Your task to perform on an android device: Open Google Chrome and open the bookmarks view Image 0: 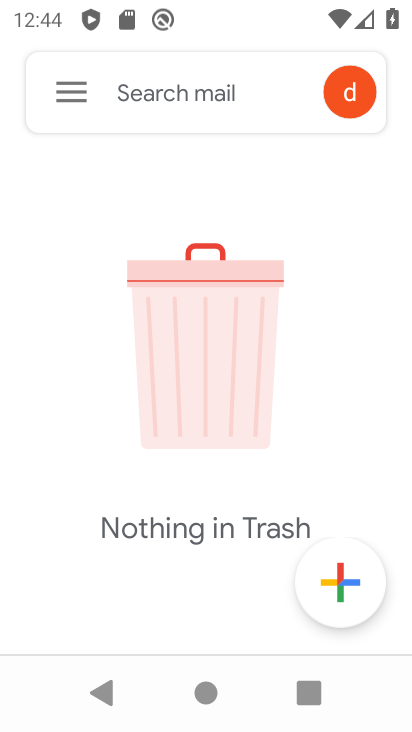
Step 0: press home button
Your task to perform on an android device: Open Google Chrome and open the bookmarks view Image 1: 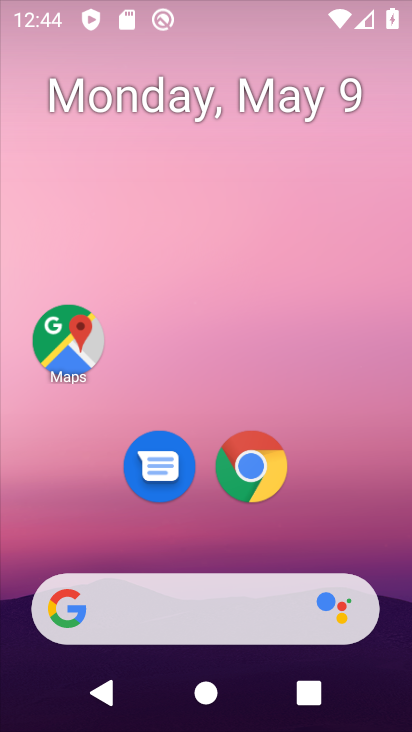
Step 1: drag from (271, 491) to (304, 97)
Your task to perform on an android device: Open Google Chrome and open the bookmarks view Image 2: 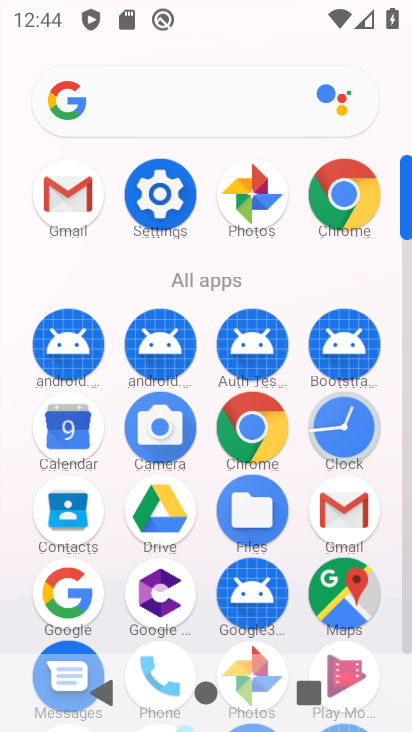
Step 2: click (348, 209)
Your task to perform on an android device: Open Google Chrome and open the bookmarks view Image 3: 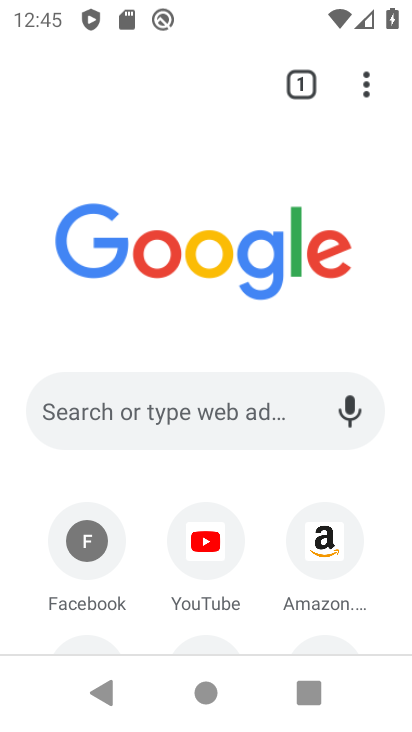
Step 3: click (370, 94)
Your task to perform on an android device: Open Google Chrome and open the bookmarks view Image 4: 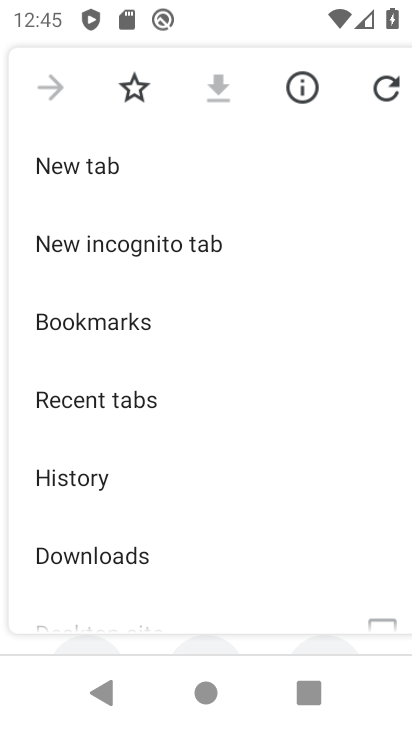
Step 4: drag from (214, 395) to (163, 207)
Your task to perform on an android device: Open Google Chrome and open the bookmarks view Image 5: 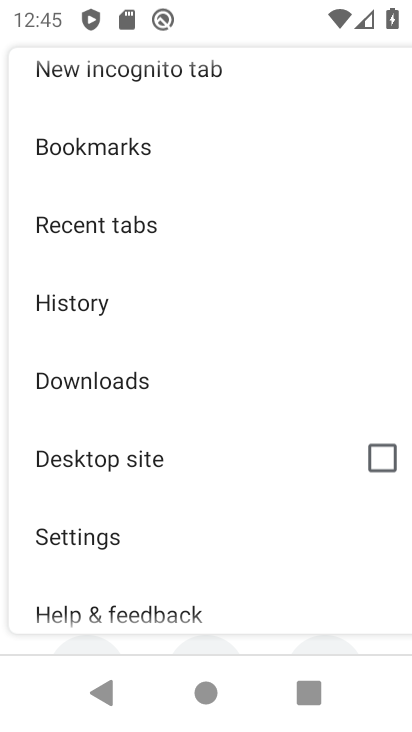
Step 5: drag from (151, 594) to (159, 310)
Your task to perform on an android device: Open Google Chrome and open the bookmarks view Image 6: 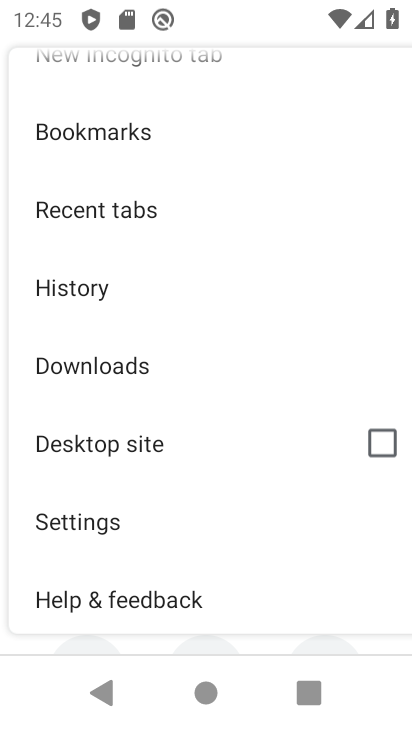
Step 6: click (200, 142)
Your task to perform on an android device: Open Google Chrome and open the bookmarks view Image 7: 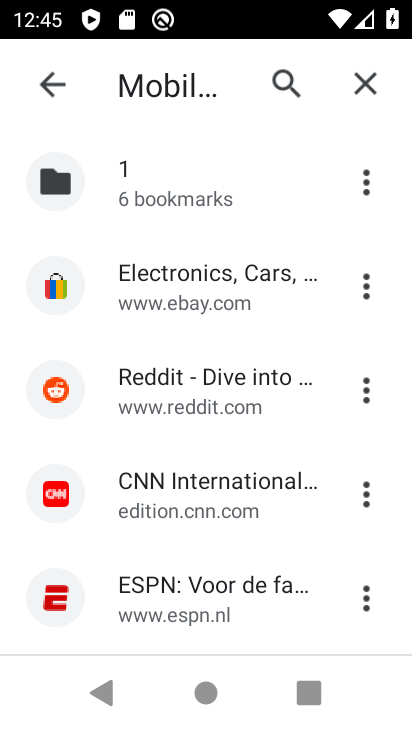
Step 7: drag from (163, 528) to (151, 253)
Your task to perform on an android device: Open Google Chrome and open the bookmarks view Image 8: 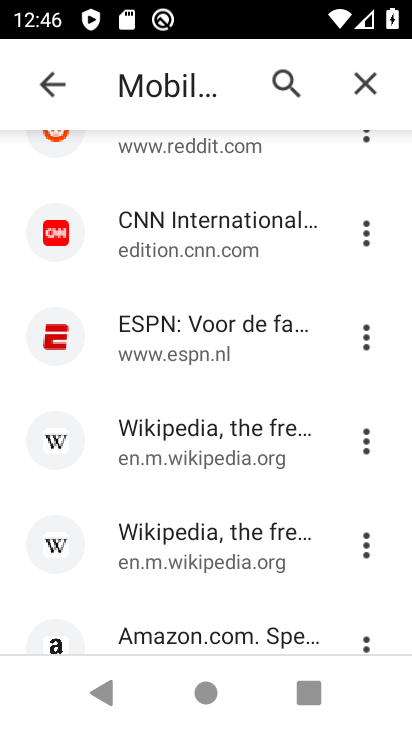
Step 8: drag from (203, 362) to (203, 112)
Your task to perform on an android device: Open Google Chrome and open the bookmarks view Image 9: 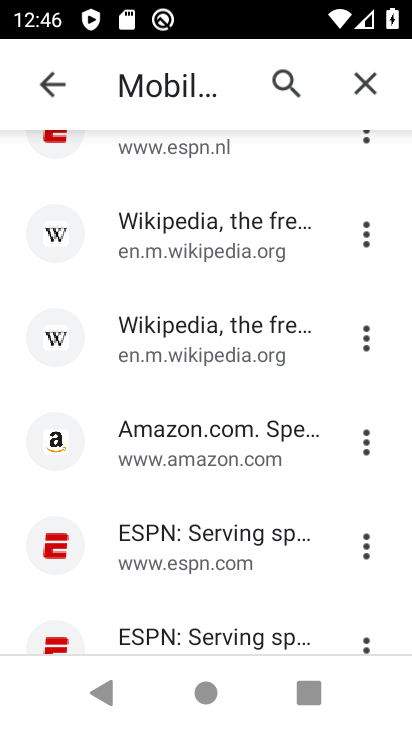
Step 9: click (55, 89)
Your task to perform on an android device: Open Google Chrome and open the bookmarks view Image 10: 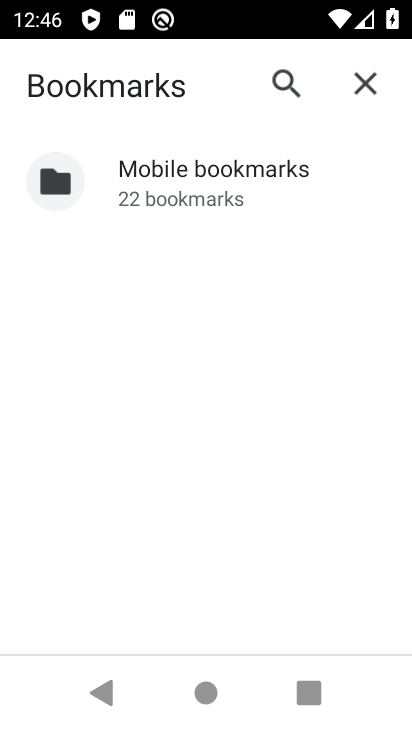
Step 10: task complete